Your task to perform on an android device: open app "Chime – Mobile Banking" (install if not already installed) Image 0: 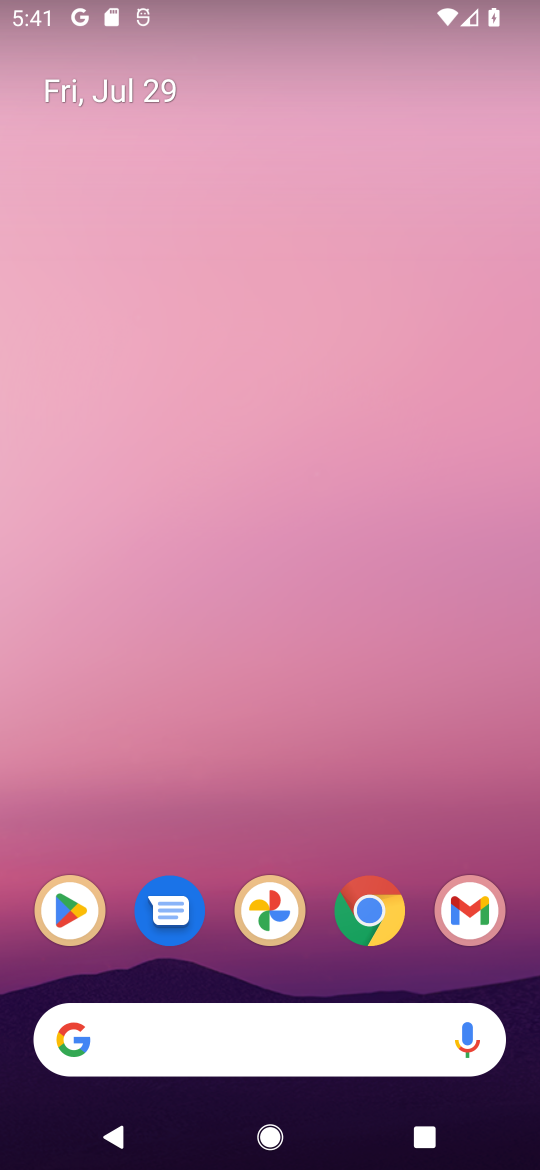
Step 0: click (49, 910)
Your task to perform on an android device: open app "Chime – Mobile Banking" (install if not already installed) Image 1: 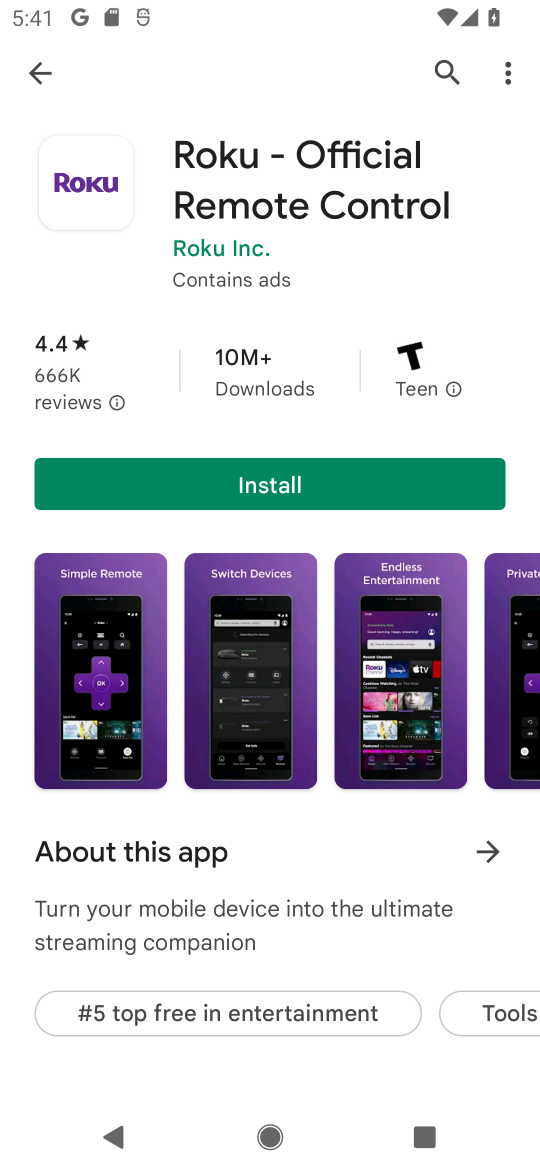
Step 1: click (441, 62)
Your task to perform on an android device: open app "Chime – Mobile Banking" (install if not already installed) Image 2: 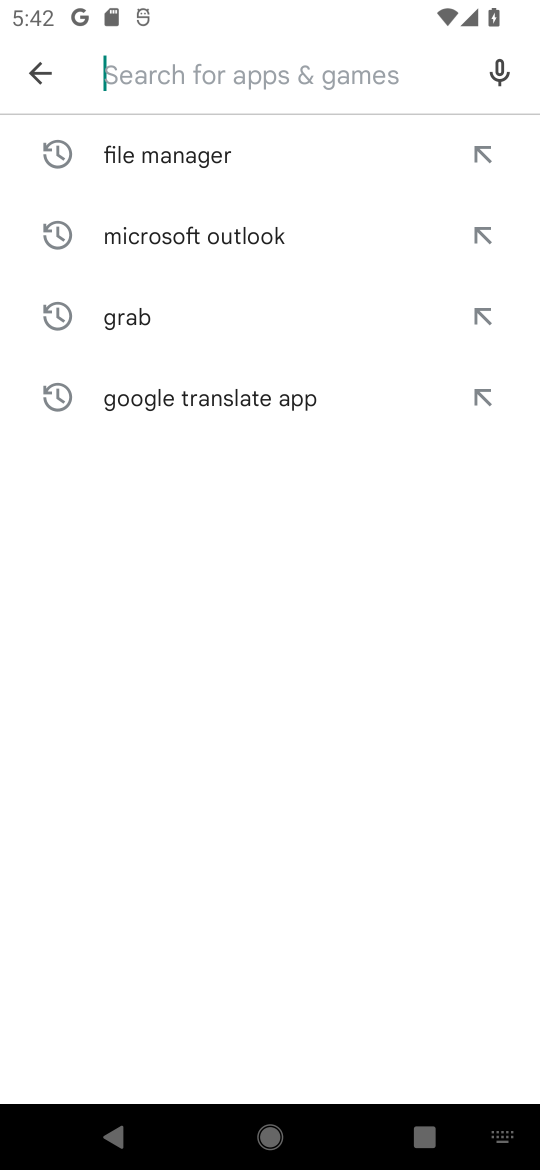
Step 2: type "chime - mobile banking "
Your task to perform on an android device: open app "Chime – Mobile Banking" (install if not already installed) Image 3: 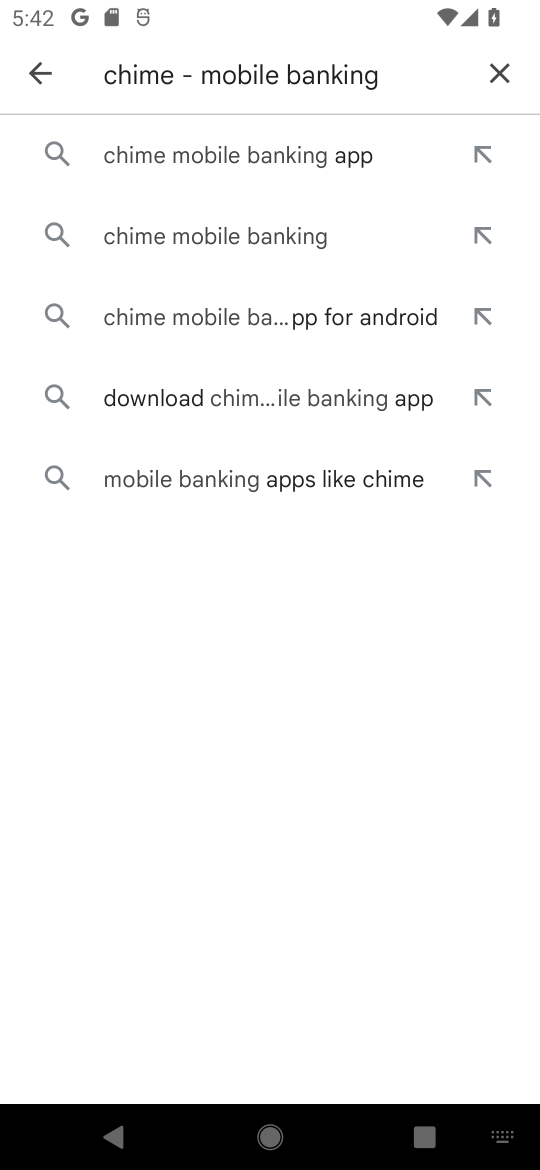
Step 3: click (208, 238)
Your task to perform on an android device: open app "Chime – Mobile Banking" (install if not already installed) Image 4: 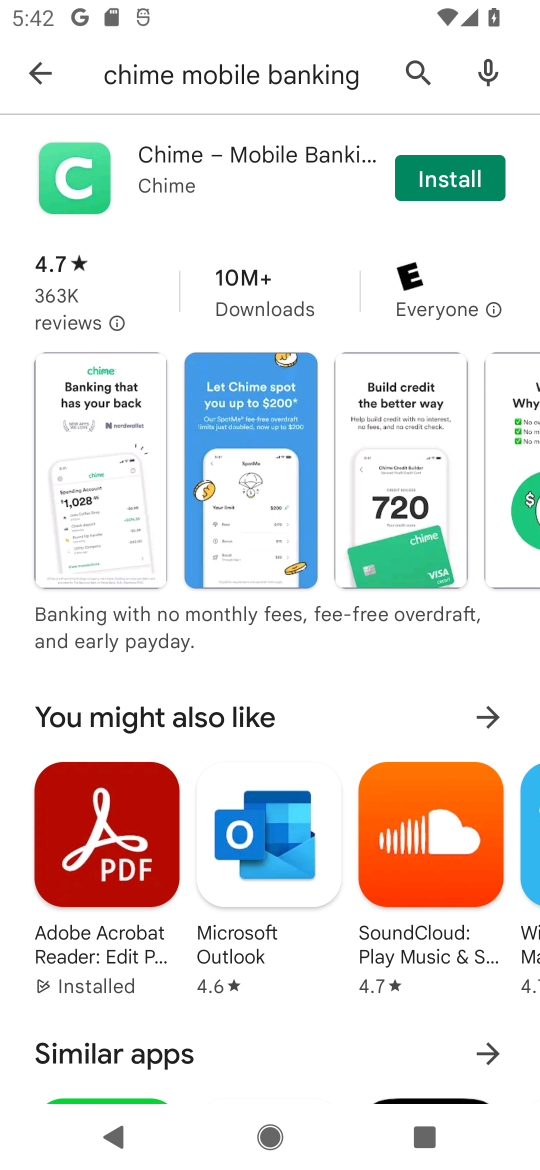
Step 4: click (249, 141)
Your task to perform on an android device: open app "Chime – Mobile Banking" (install if not already installed) Image 5: 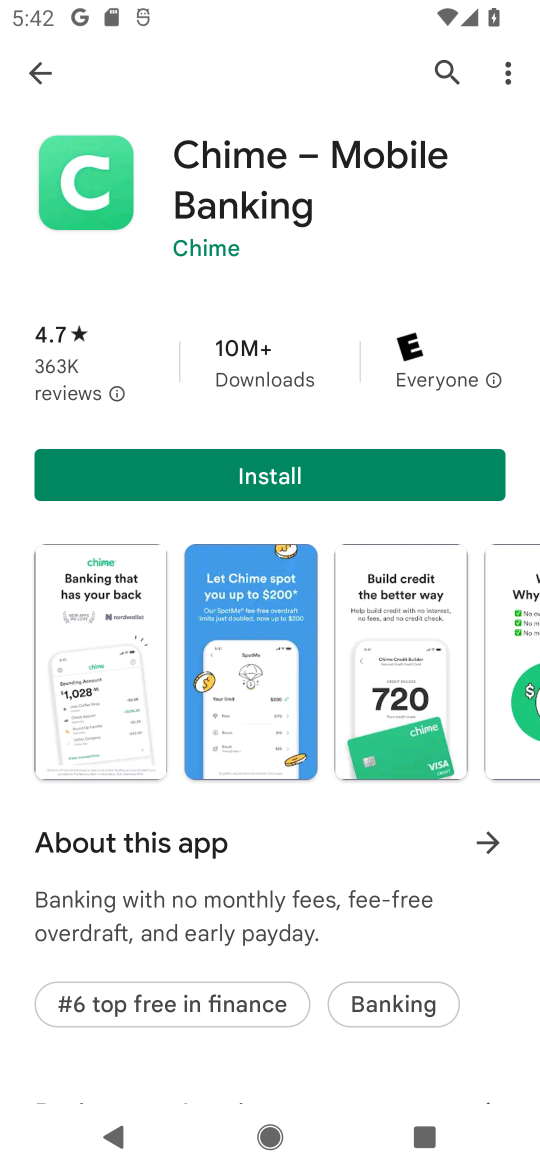
Step 5: click (349, 467)
Your task to perform on an android device: open app "Chime – Mobile Banking" (install if not already installed) Image 6: 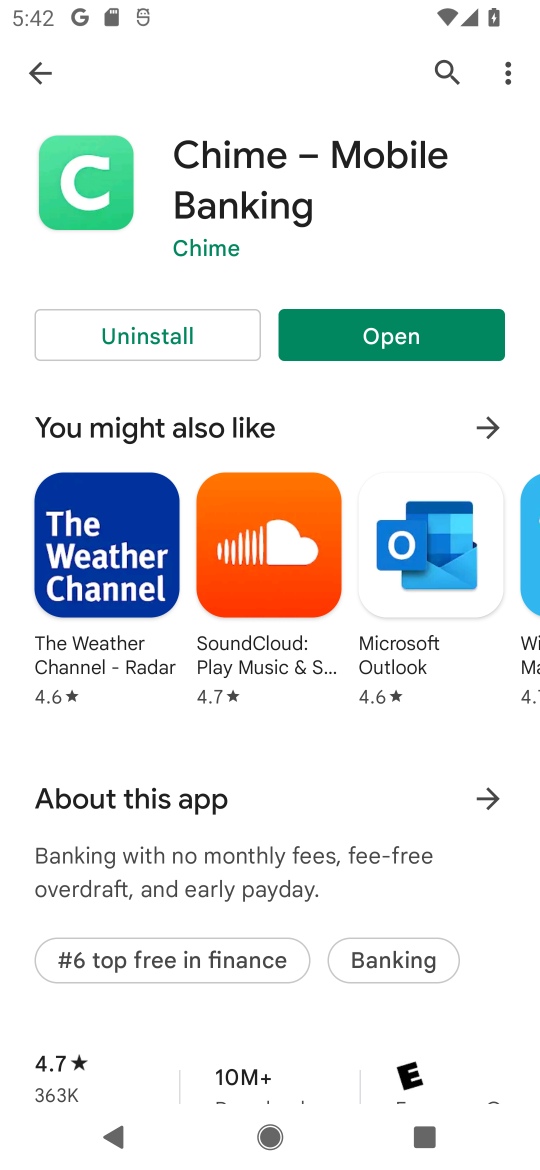
Step 6: click (389, 326)
Your task to perform on an android device: open app "Chime – Mobile Banking" (install if not already installed) Image 7: 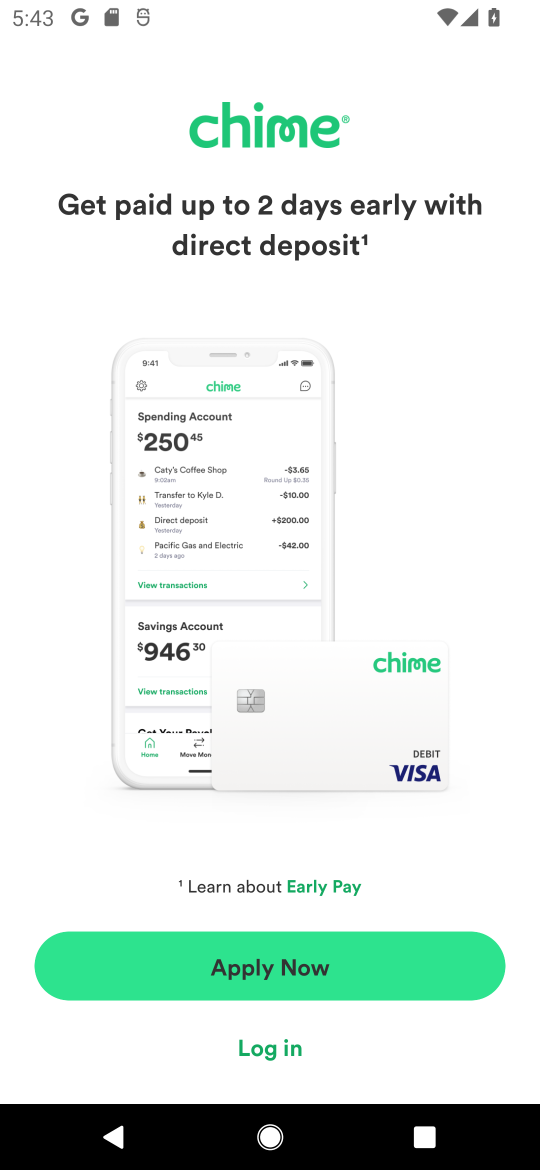
Step 7: task complete